Your task to perform on an android device: open sync settings in chrome Image 0: 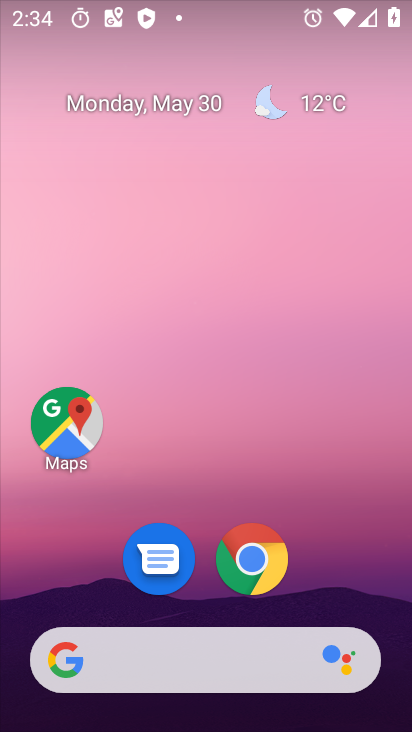
Step 0: click (254, 555)
Your task to perform on an android device: open sync settings in chrome Image 1: 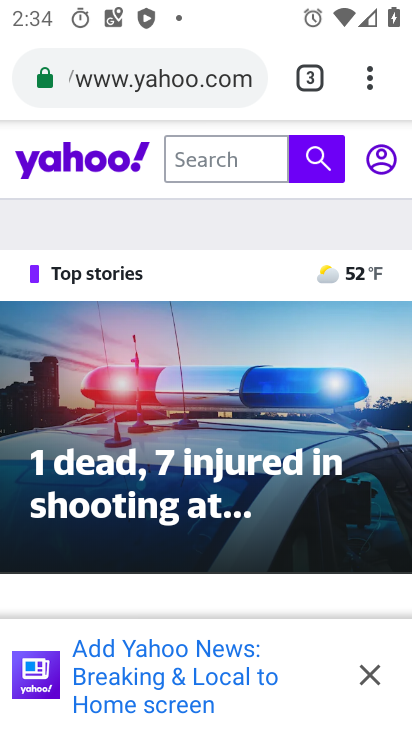
Step 1: drag from (374, 72) to (112, 607)
Your task to perform on an android device: open sync settings in chrome Image 2: 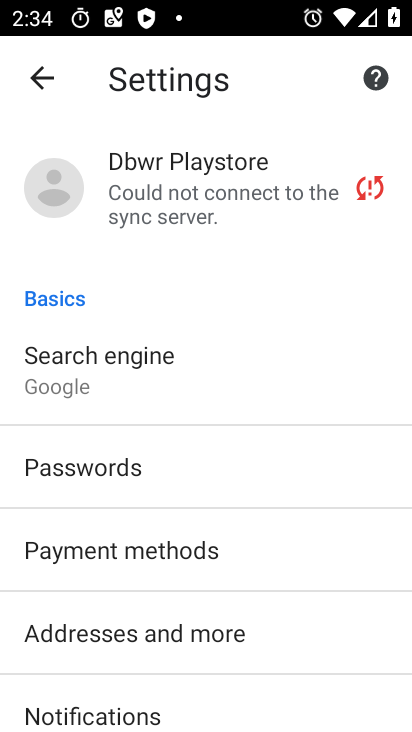
Step 2: click (186, 209)
Your task to perform on an android device: open sync settings in chrome Image 3: 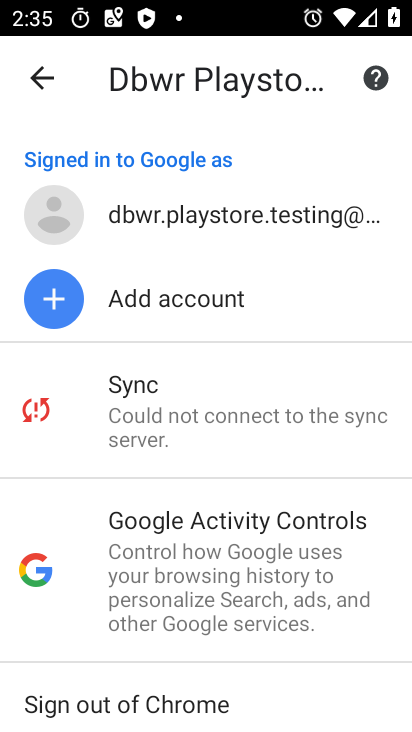
Step 3: task complete